Your task to perform on an android device: Open internet settings Image 0: 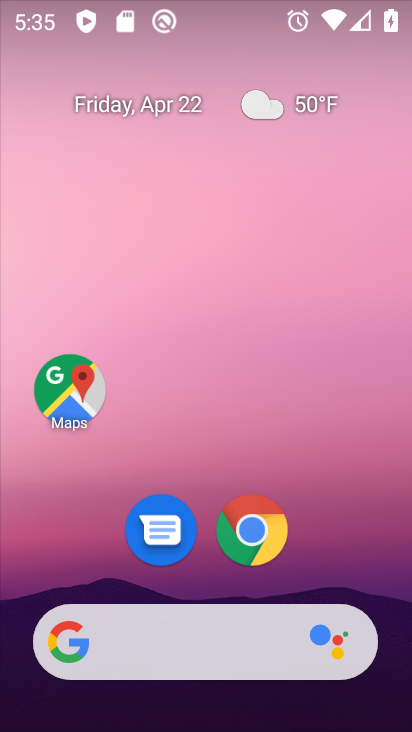
Step 0: drag from (372, 504) to (410, 91)
Your task to perform on an android device: Open internet settings Image 1: 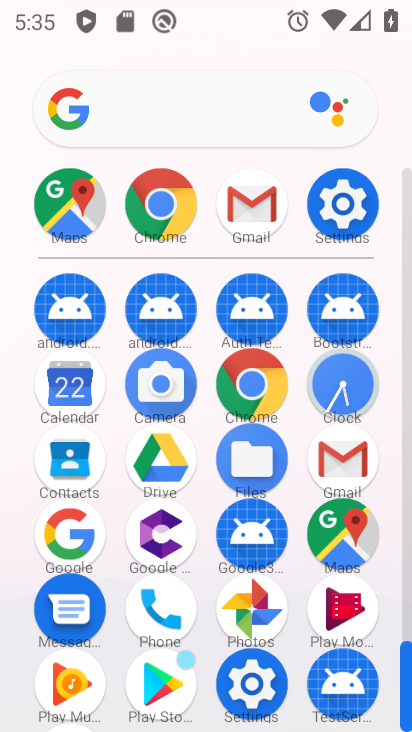
Step 1: click (265, 682)
Your task to perform on an android device: Open internet settings Image 2: 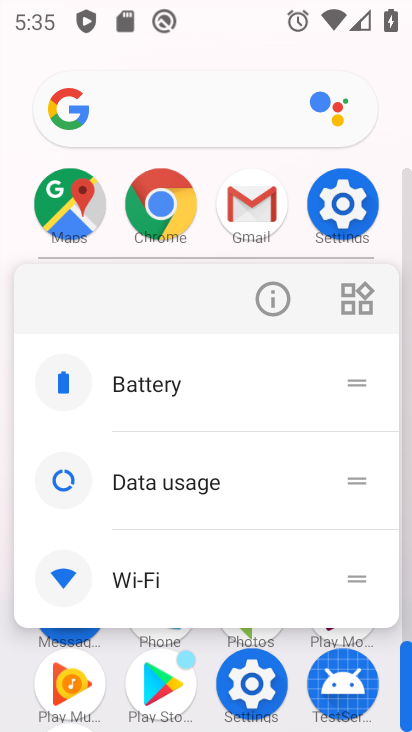
Step 2: click (274, 680)
Your task to perform on an android device: Open internet settings Image 3: 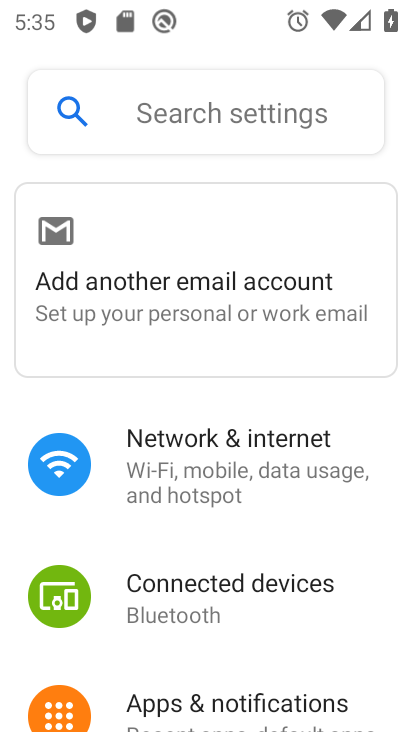
Step 3: click (241, 459)
Your task to perform on an android device: Open internet settings Image 4: 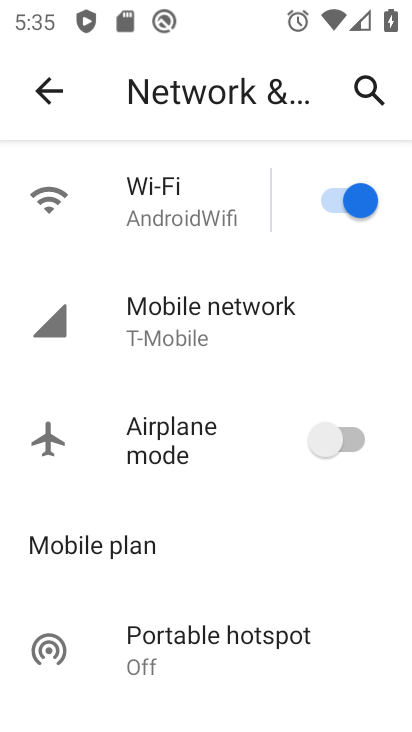
Step 4: task complete